Your task to perform on an android device: Open location settings Image 0: 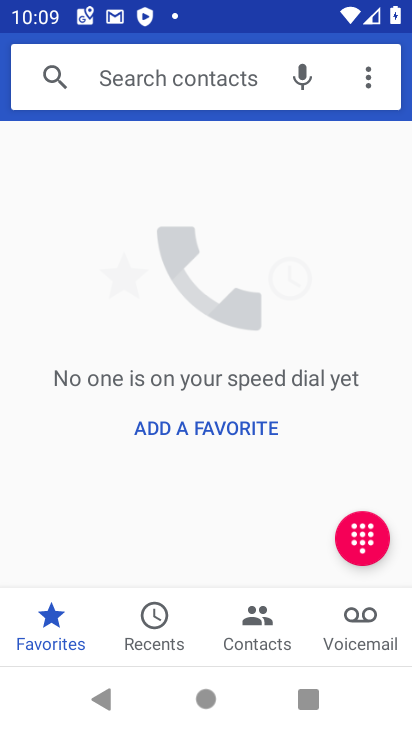
Step 0: press home button
Your task to perform on an android device: Open location settings Image 1: 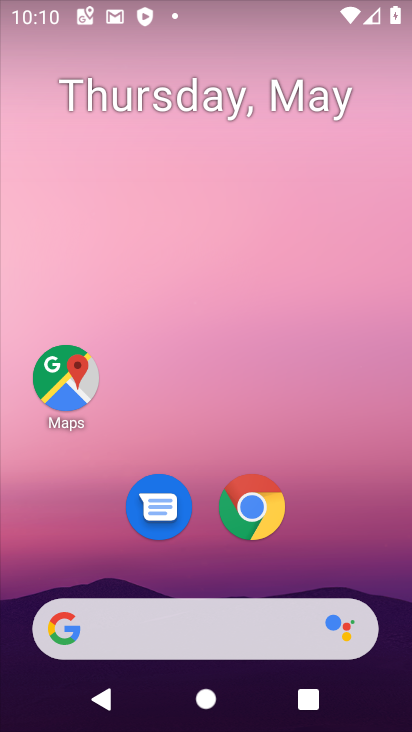
Step 1: drag from (147, 727) to (131, 88)
Your task to perform on an android device: Open location settings Image 2: 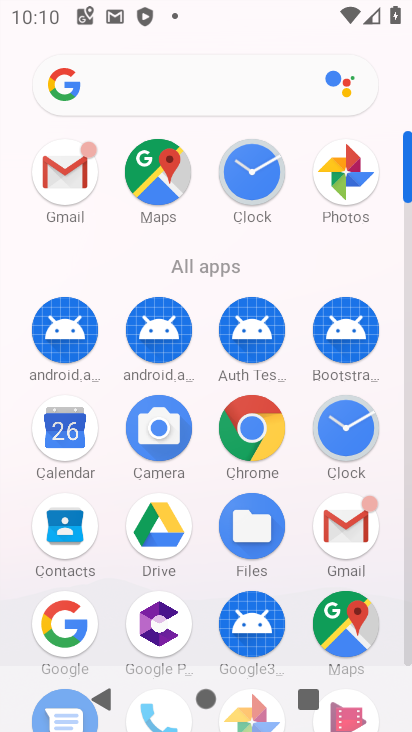
Step 2: drag from (112, 551) to (134, 154)
Your task to perform on an android device: Open location settings Image 3: 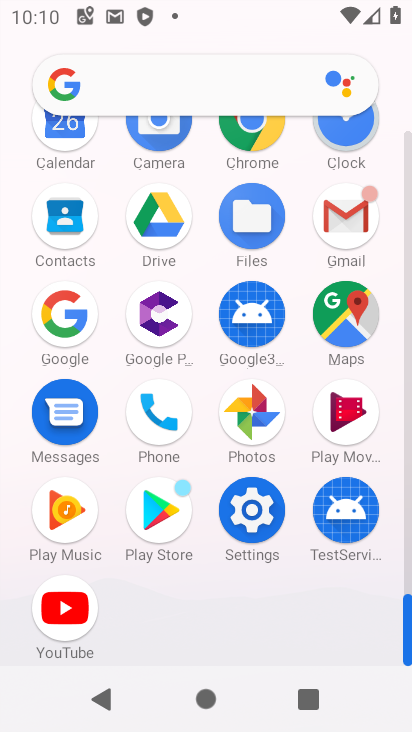
Step 3: click (249, 534)
Your task to perform on an android device: Open location settings Image 4: 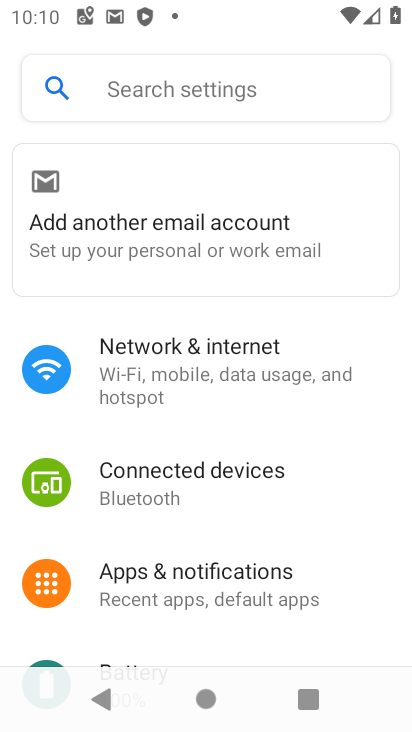
Step 4: drag from (303, 617) to (273, 239)
Your task to perform on an android device: Open location settings Image 5: 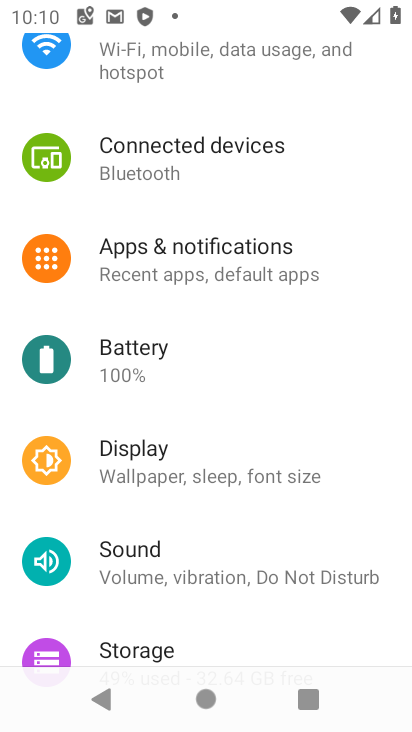
Step 5: drag from (276, 624) to (270, 233)
Your task to perform on an android device: Open location settings Image 6: 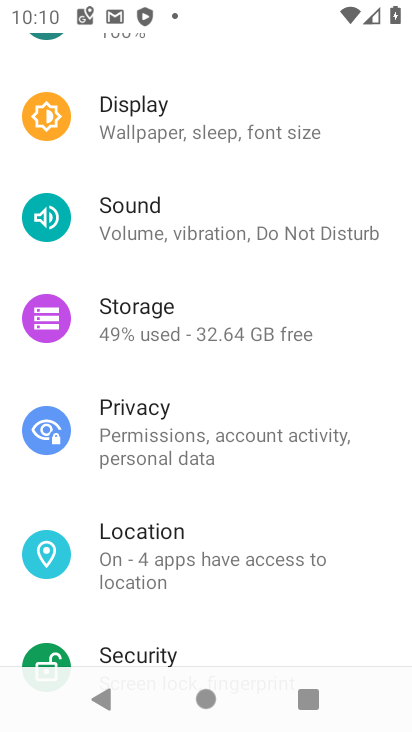
Step 6: click (206, 563)
Your task to perform on an android device: Open location settings Image 7: 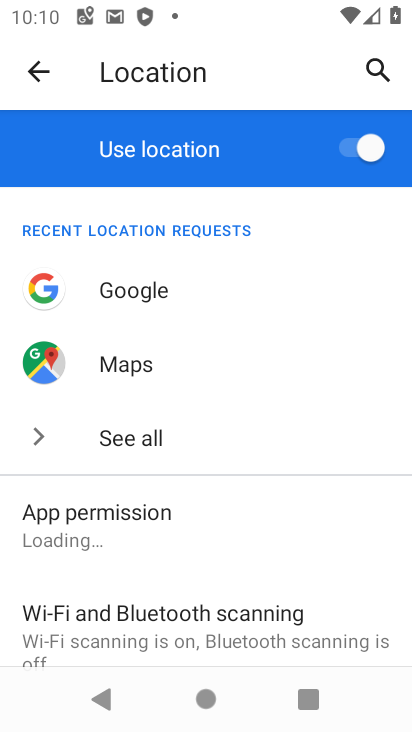
Step 7: task complete